Your task to perform on an android device: Open calendar and show me the fourth week of next month Image 0: 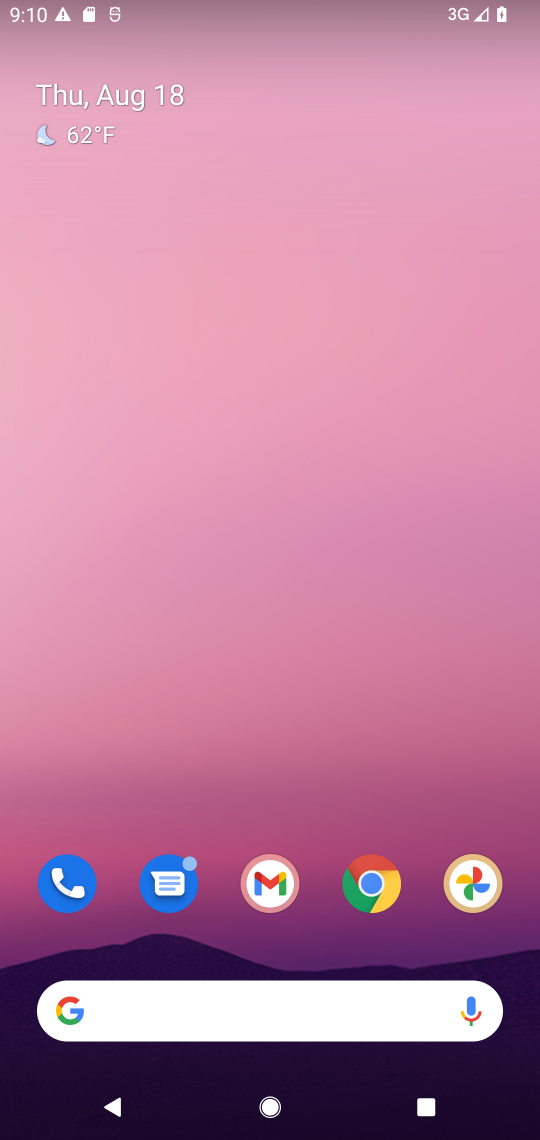
Step 0: drag from (50, 1098) to (185, 437)
Your task to perform on an android device: Open calendar and show me the fourth week of next month Image 1: 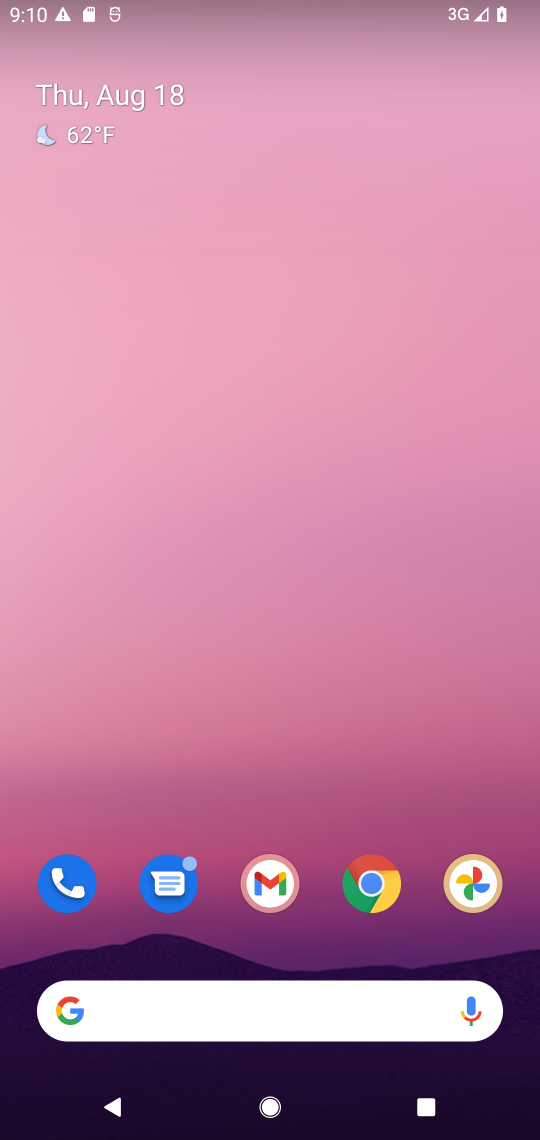
Step 1: drag from (14, 1084) to (170, 297)
Your task to perform on an android device: Open calendar and show me the fourth week of next month Image 2: 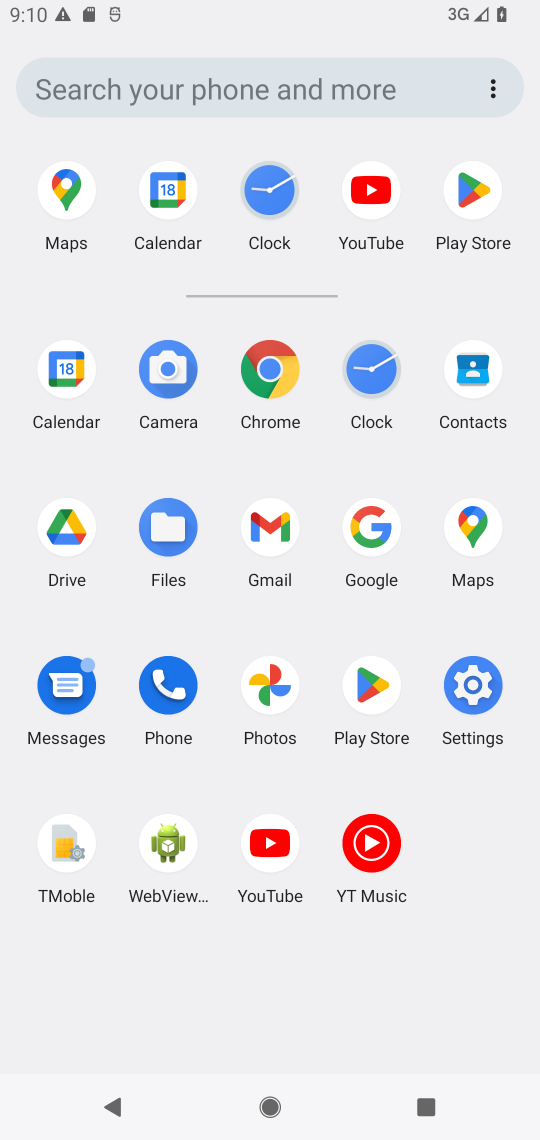
Step 2: click (167, 217)
Your task to perform on an android device: Open calendar and show me the fourth week of next month Image 3: 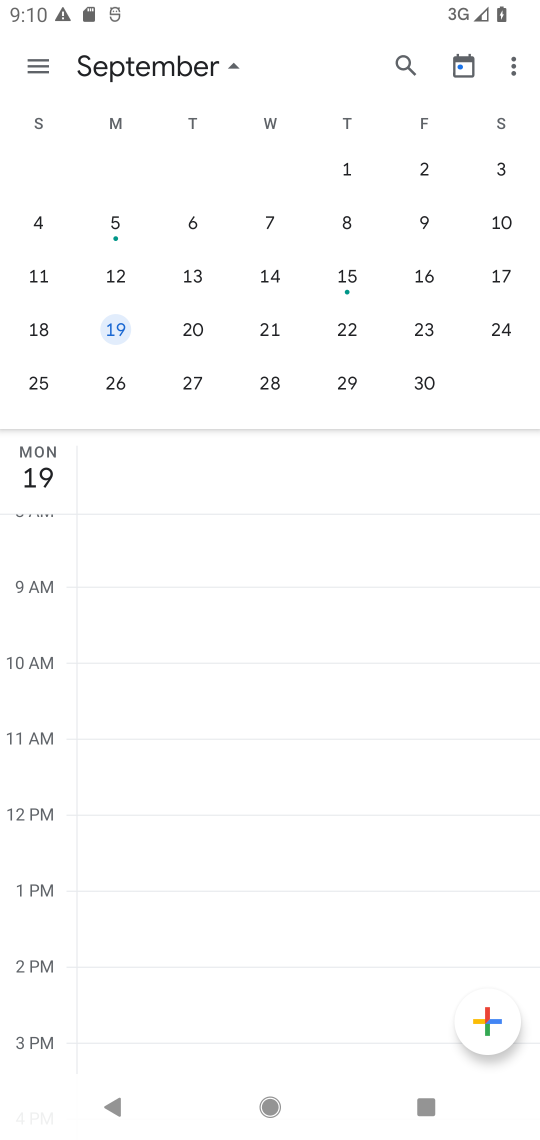
Step 3: drag from (20, 184) to (430, 294)
Your task to perform on an android device: Open calendar and show me the fourth week of next month Image 4: 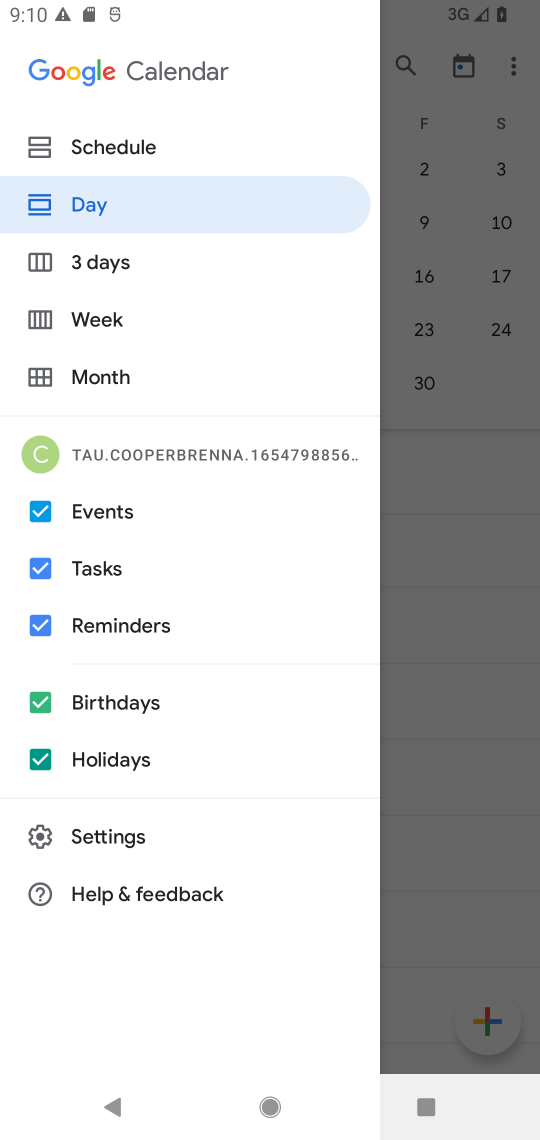
Step 4: click (451, 449)
Your task to perform on an android device: Open calendar and show me the fourth week of next month Image 5: 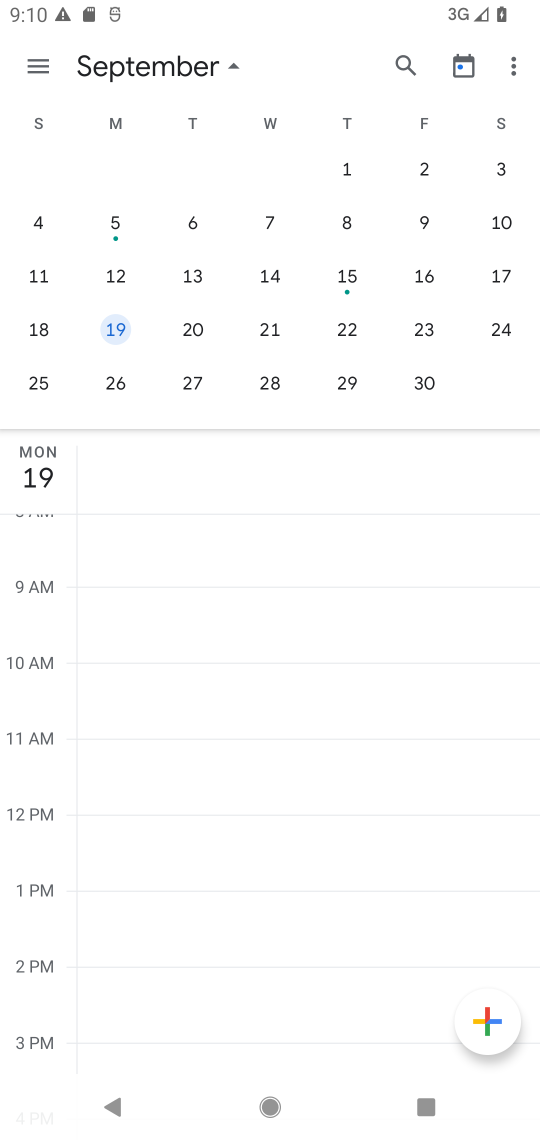
Step 5: task complete